Your task to perform on an android device: Go to Yahoo.com Image 0: 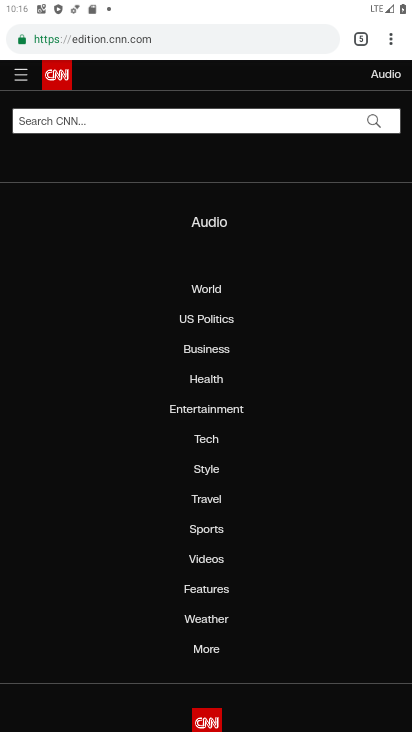
Step 0: press home button
Your task to perform on an android device: Go to Yahoo.com Image 1: 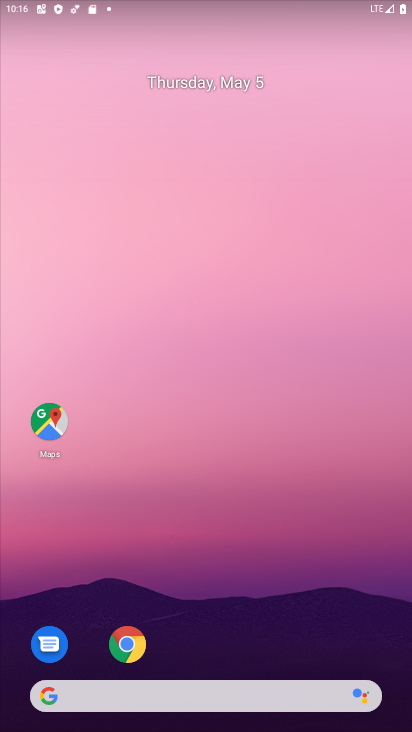
Step 1: click (148, 649)
Your task to perform on an android device: Go to Yahoo.com Image 2: 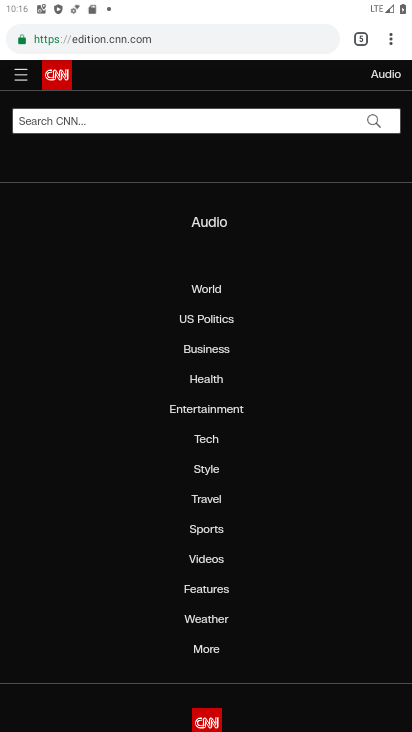
Step 2: click (357, 33)
Your task to perform on an android device: Go to Yahoo.com Image 3: 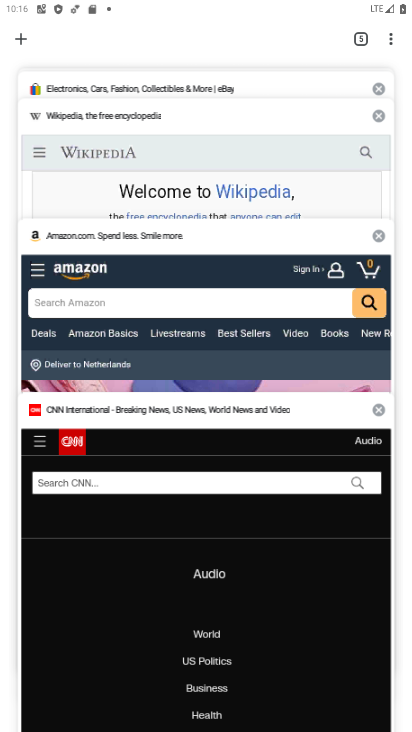
Step 3: click (17, 34)
Your task to perform on an android device: Go to Yahoo.com Image 4: 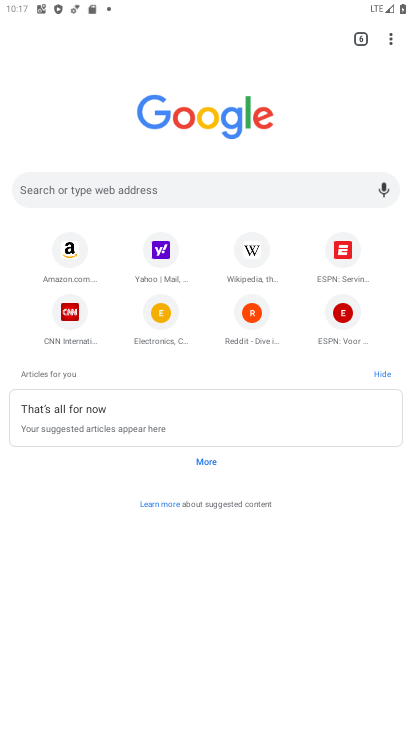
Step 4: click (162, 254)
Your task to perform on an android device: Go to Yahoo.com Image 5: 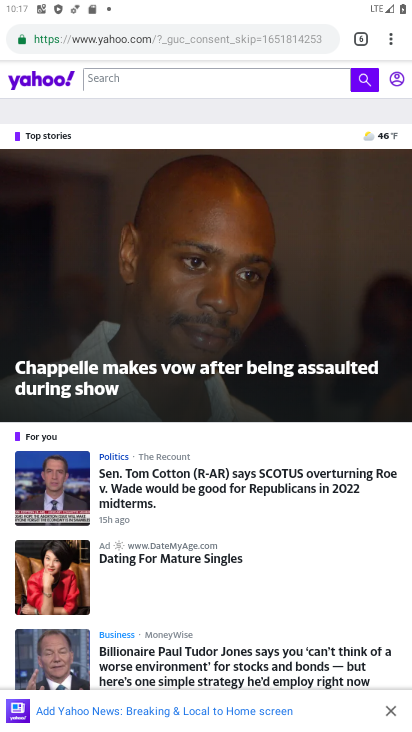
Step 5: task complete